Your task to perform on an android device: Open Yahoo.com Image 0: 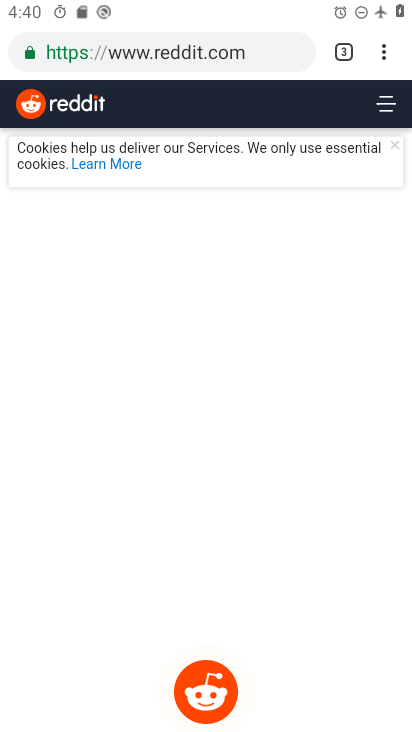
Step 0: press home button
Your task to perform on an android device: Open Yahoo.com Image 1: 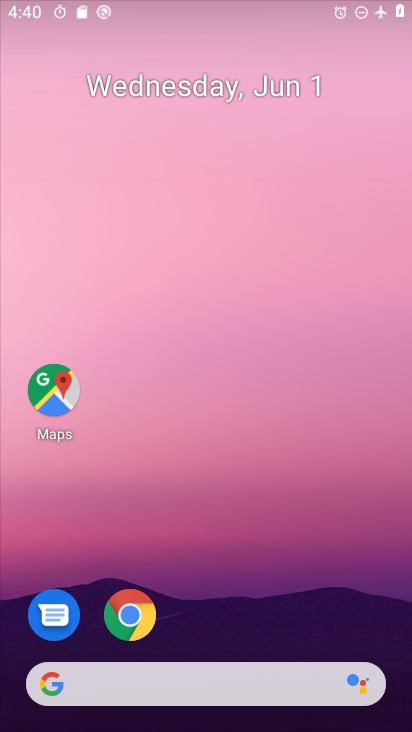
Step 1: drag from (304, 627) to (317, 32)
Your task to perform on an android device: Open Yahoo.com Image 2: 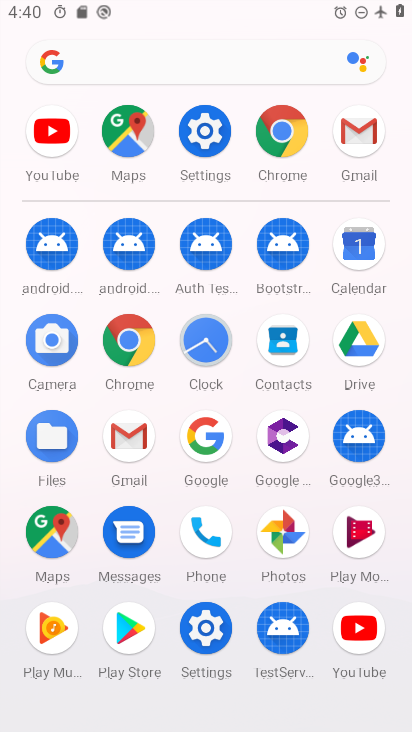
Step 2: click (271, 131)
Your task to perform on an android device: Open Yahoo.com Image 3: 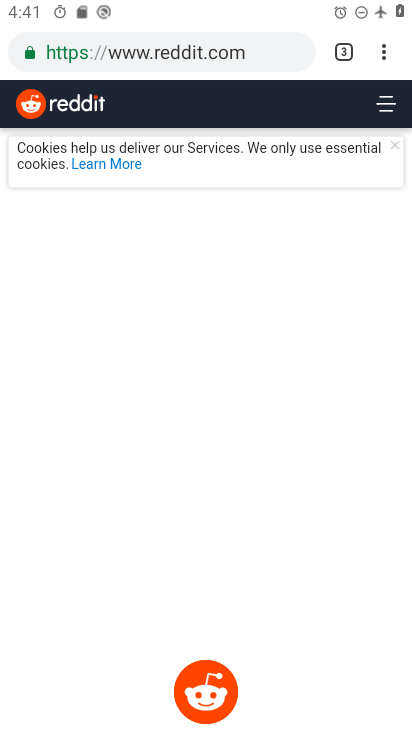
Step 3: click (282, 43)
Your task to perform on an android device: Open Yahoo.com Image 4: 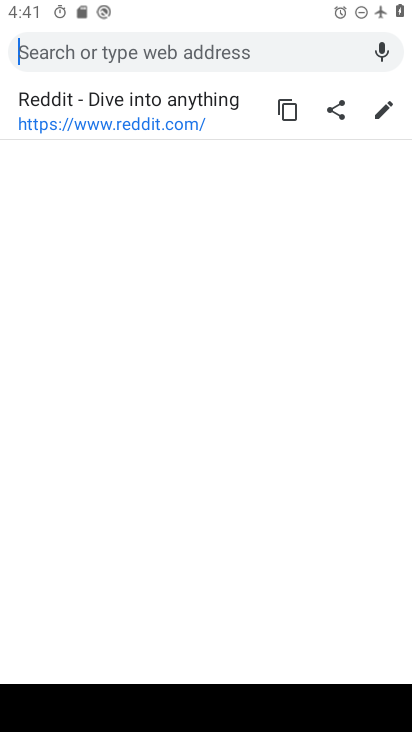
Step 4: type "yahoo.com"
Your task to perform on an android device: Open Yahoo.com Image 5: 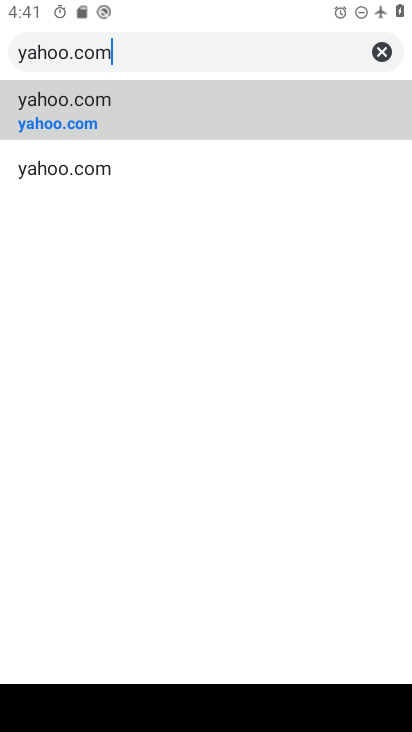
Step 5: click (302, 121)
Your task to perform on an android device: Open Yahoo.com Image 6: 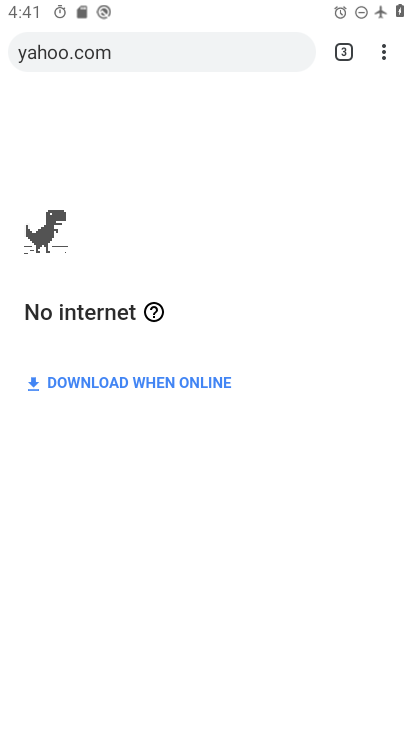
Step 6: task complete